Your task to perform on an android device: Do I have any events tomorrow? Image 0: 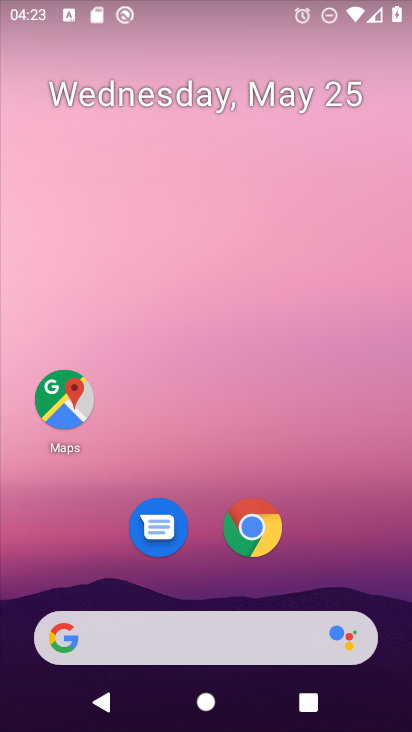
Step 0: drag from (249, 555) to (246, 78)
Your task to perform on an android device: Do I have any events tomorrow? Image 1: 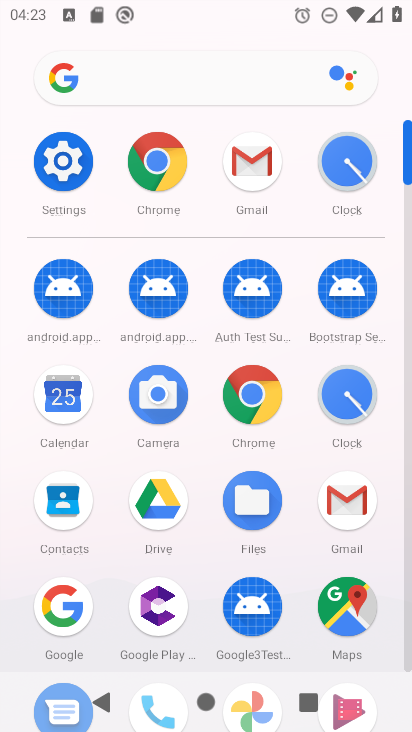
Step 1: click (85, 166)
Your task to perform on an android device: Do I have any events tomorrow? Image 2: 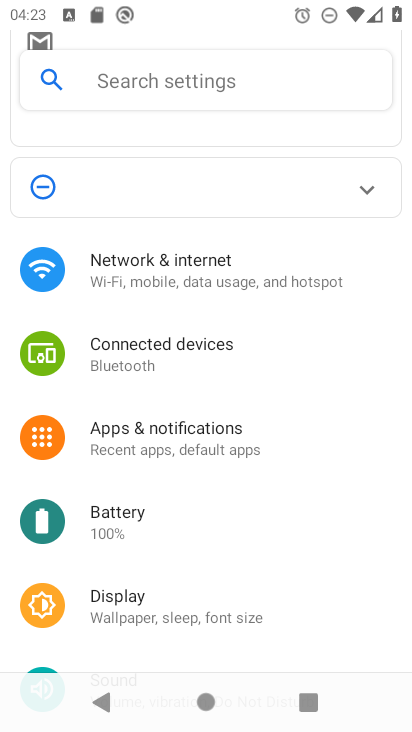
Step 2: press home button
Your task to perform on an android device: Do I have any events tomorrow? Image 3: 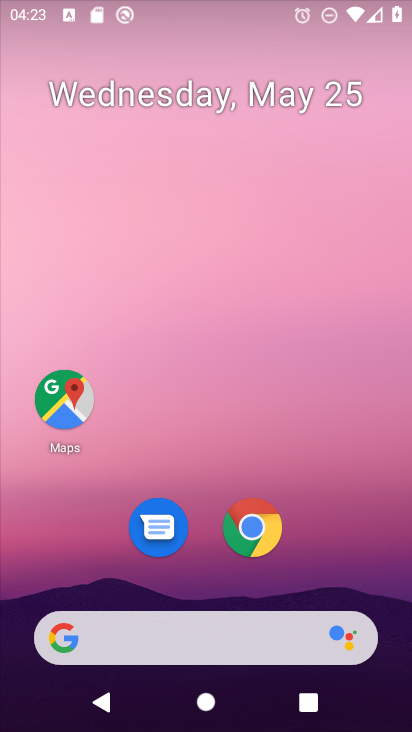
Step 3: drag from (334, 660) to (347, 79)
Your task to perform on an android device: Do I have any events tomorrow? Image 4: 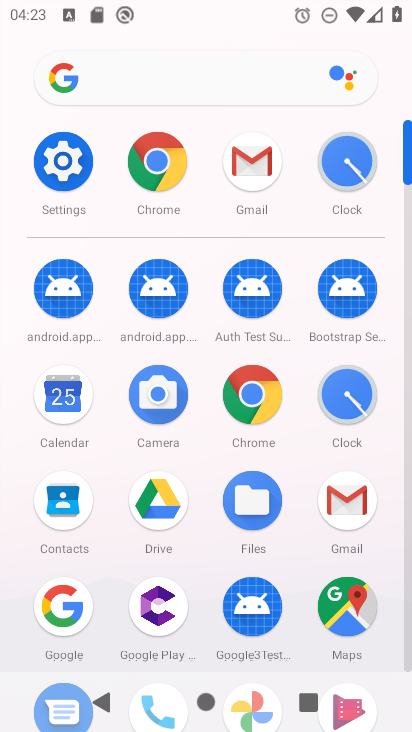
Step 4: click (68, 393)
Your task to perform on an android device: Do I have any events tomorrow? Image 5: 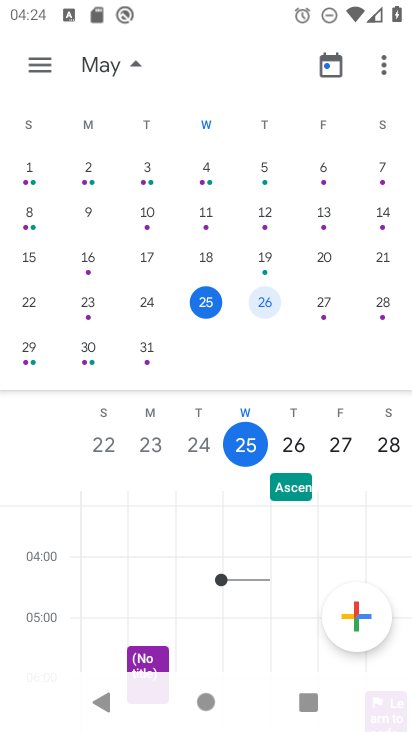
Step 5: click (263, 292)
Your task to perform on an android device: Do I have any events tomorrow? Image 6: 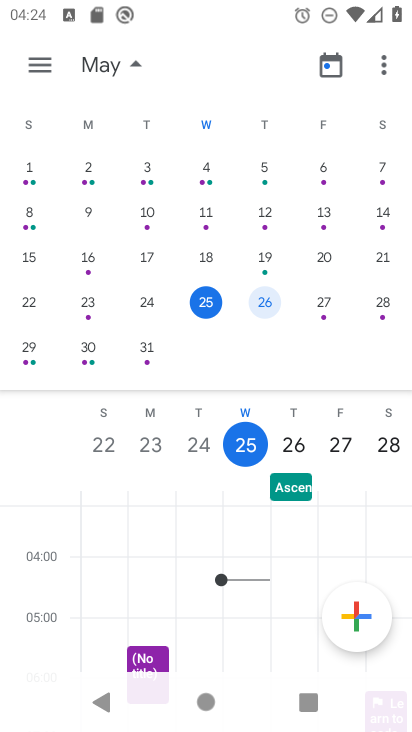
Step 6: task complete